Your task to perform on an android device: Open the stopwatch Image 0: 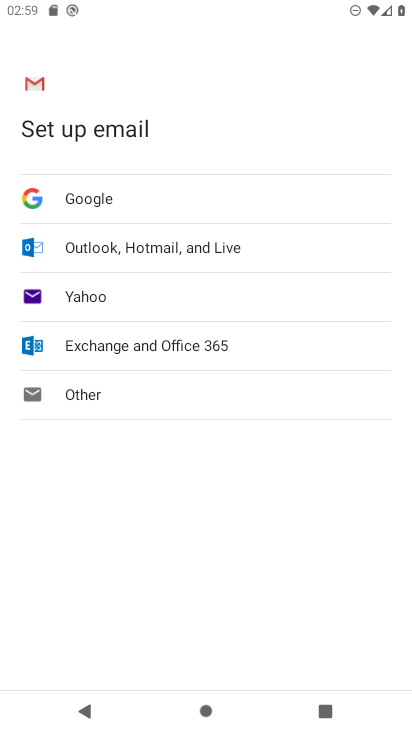
Step 0: press home button
Your task to perform on an android device: Open the stopwatch Image 1: 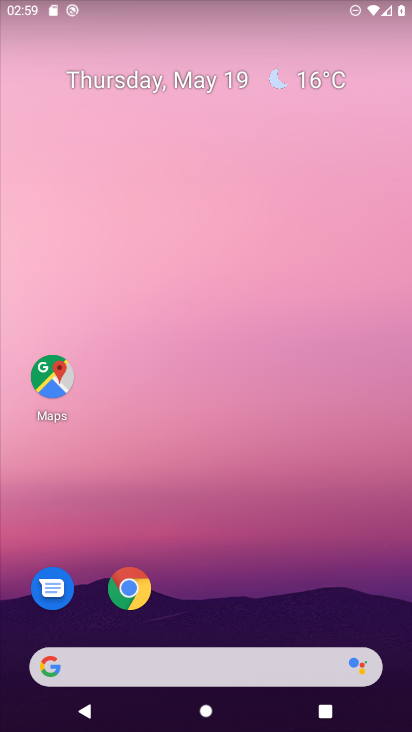
Step 1: drag from (224, 624) to (207, 9)
Your task to perform on an android device: Open the stopwatch Image 2: 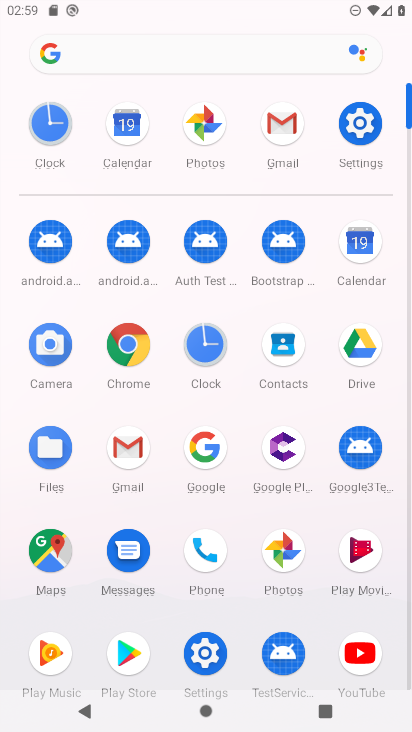
Step 2: click (42, 126)
Your task to perform on an android device: Open the stopwatch Image 3: 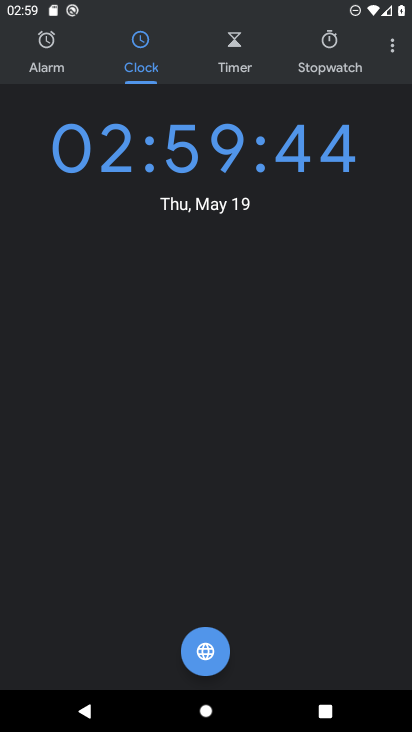
Step 3: click (320, 66)
Your task to perform on an android device: Open the stopwatch Image 4: 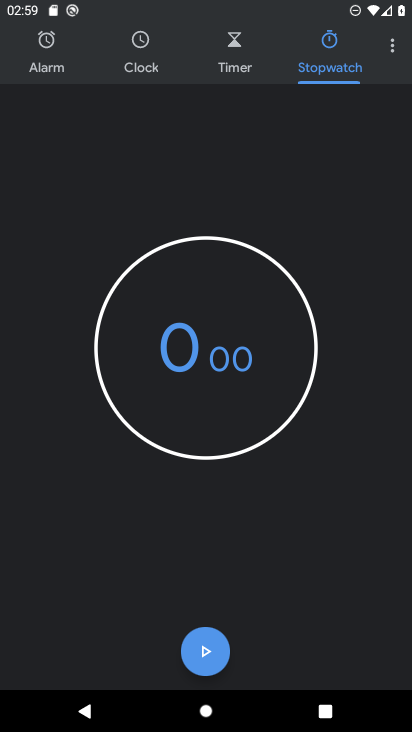
Step 4: task complete